Your task to perform on an android device: change text size in settings app Image 0: 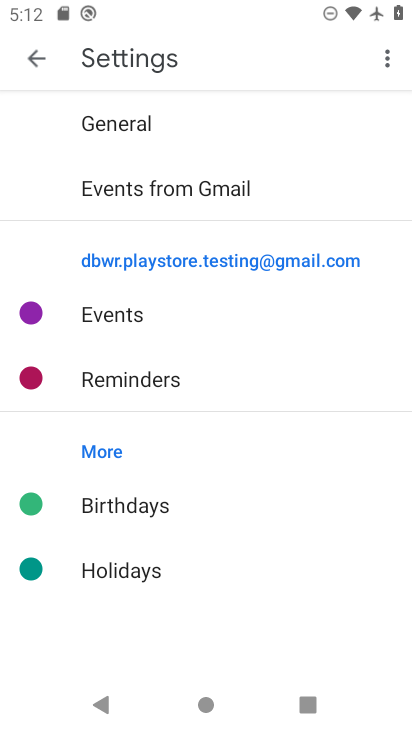
Step 0: press home button
Your task to perform on an android device: change text size in settings app Image 1: 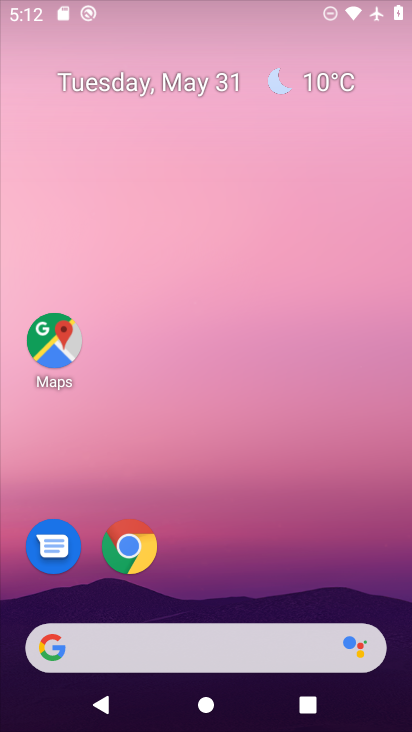
Step 1: drag from (332, 531) to (195, 19)
Your task to perform on an android device: change text size in settings app Image 2: 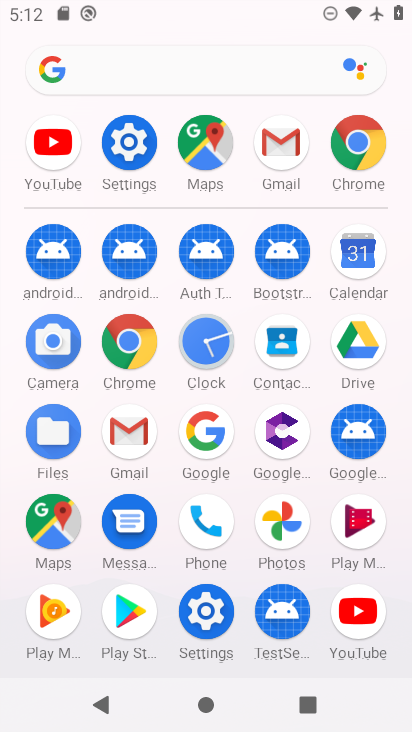
Step 2: click (121, 147)
Your task to perform on an android device: change text size in settings app Image 3: 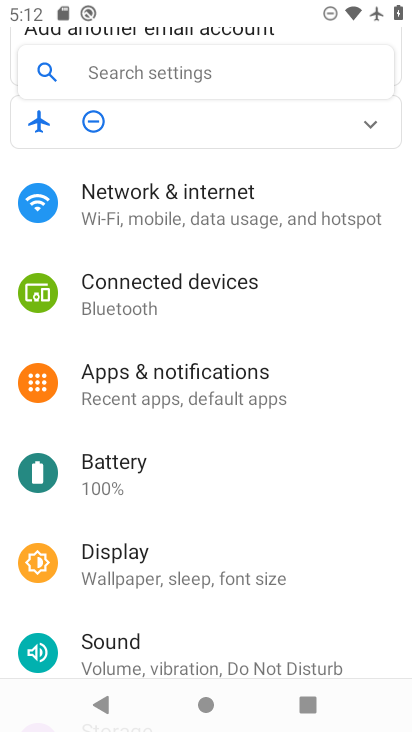
Step 3: click (208, 556)
Your task to perform on an android device: change text size in settings app Image 4: 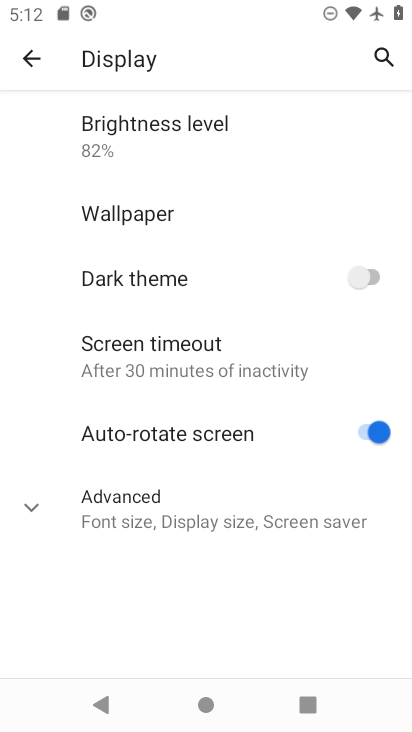
Step 4: click (181, 511)
Your task to perform on an android device: change text size in settings app Image 5: 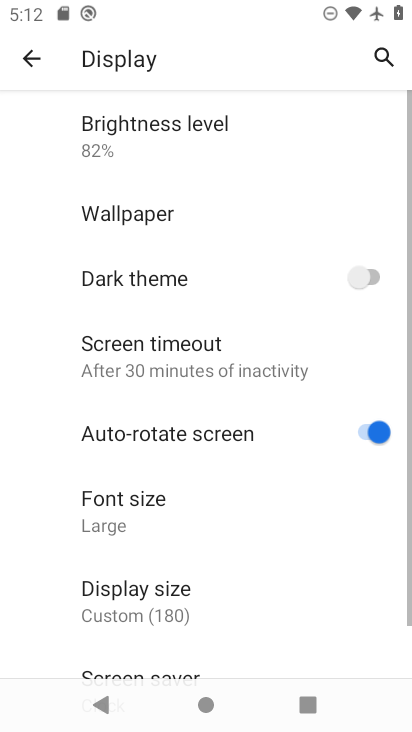
Step 5: click (186, 512)
Your task to perform on an android device: change text size in settings app Image 6: 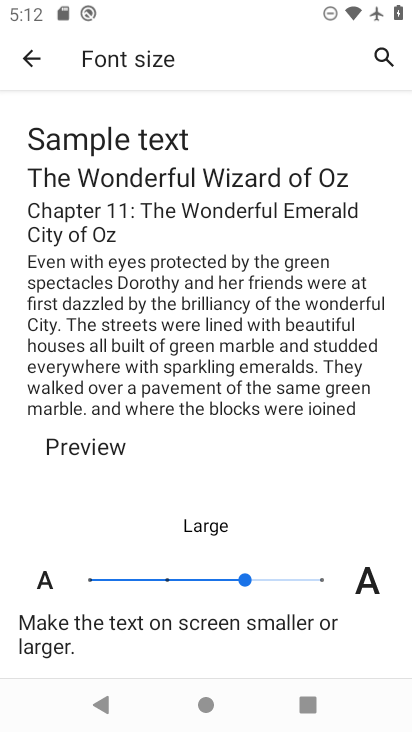
Step 6: click (172, 580)
Your task to perform on an android device: change text size in settings app Image 7: 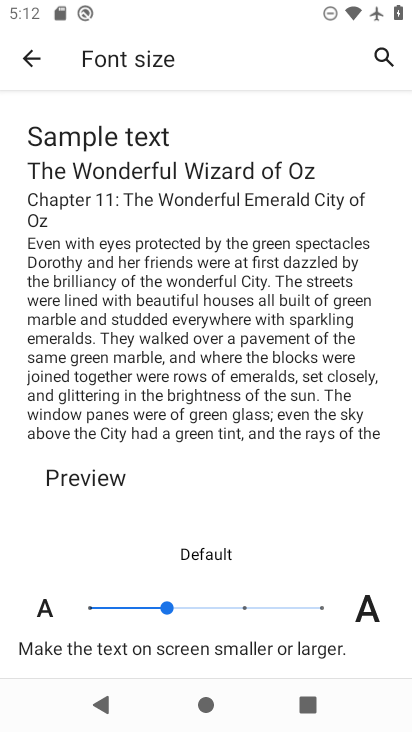
Step 7: task complete